Your task to perform on an android device: Turn off the flashlight Image 0: 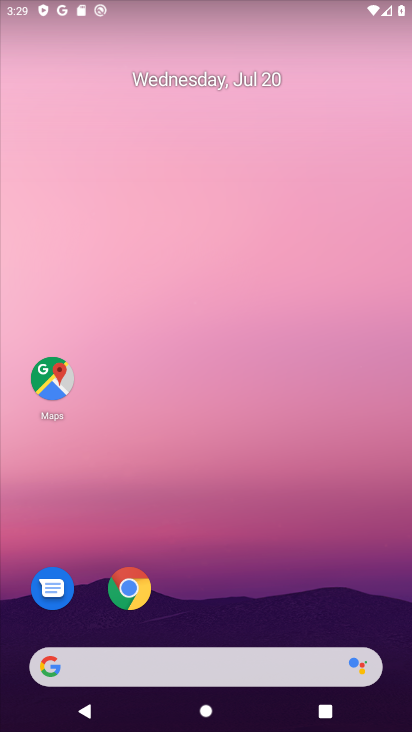
Step 0: drag from (245, 616) to (285, 201)
Your task to perform on an android device: Turn off the flashlight Image 1: 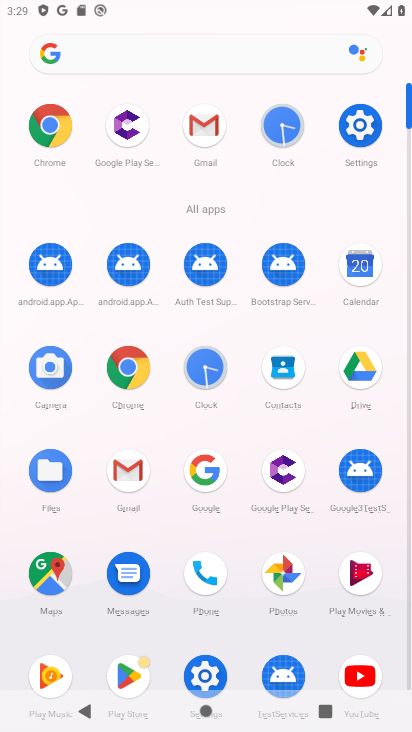
Step 1: click (371, 128)
Your task to perform on an android device: Turn off the flashlight Image 2: 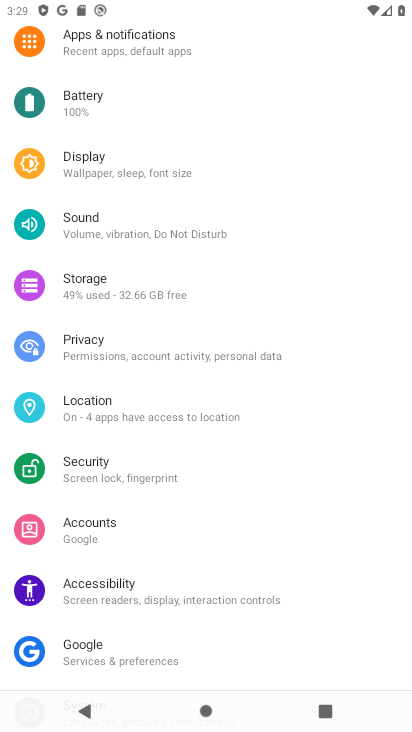
Step 2: task complete